Your task to perform on an android device: Check the news Image 0: 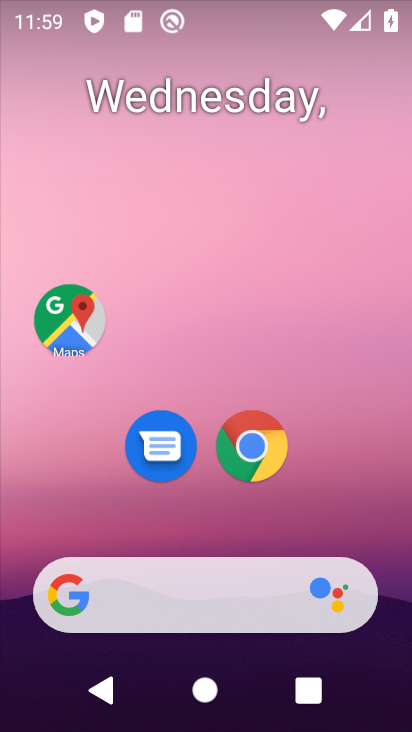
Step 0: click (236, 449)
Your task to perform on an android device: Check the news Image 1: 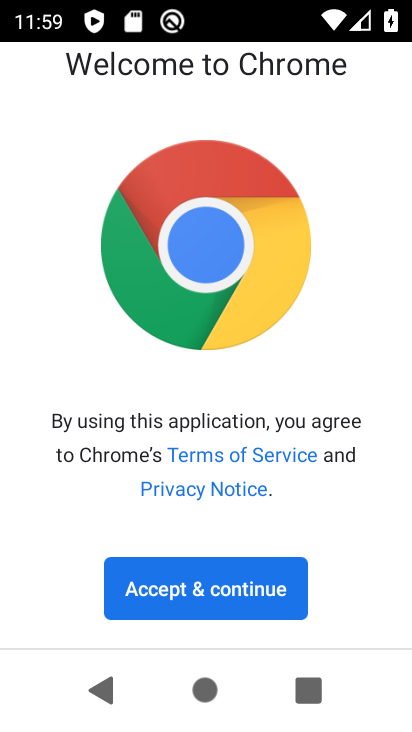
Step 1: click (115, 587)
Your task to perform on an android device: Check the news Image 2: 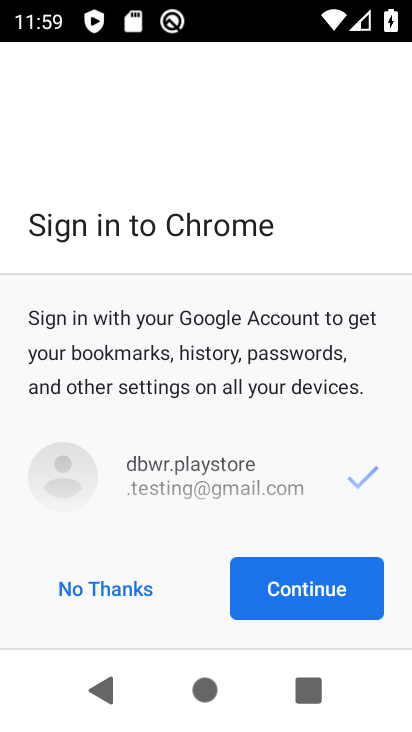
Step 2: click (346, 575)
Your task to perform on an android device: Check the news Image 3: 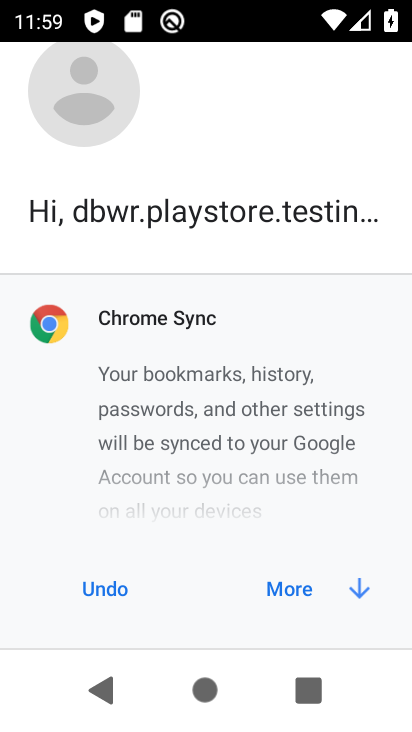
Step 3: click (342, 588)
Your task to perform on an android device: Check the news Image 4: 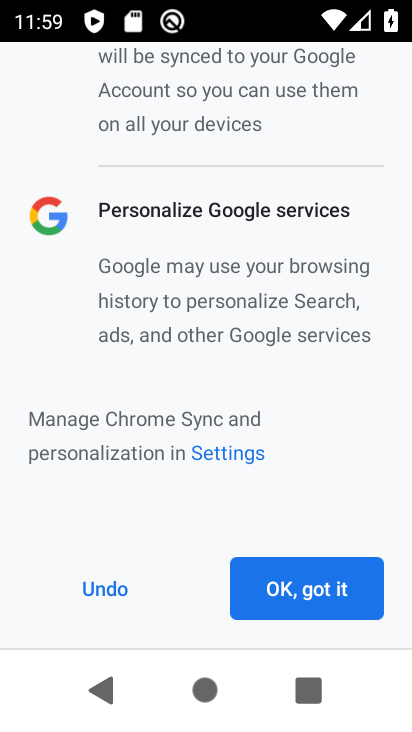
Step 4: click (331, 580)
Your task to perform on an android device: Check the news Image 5: 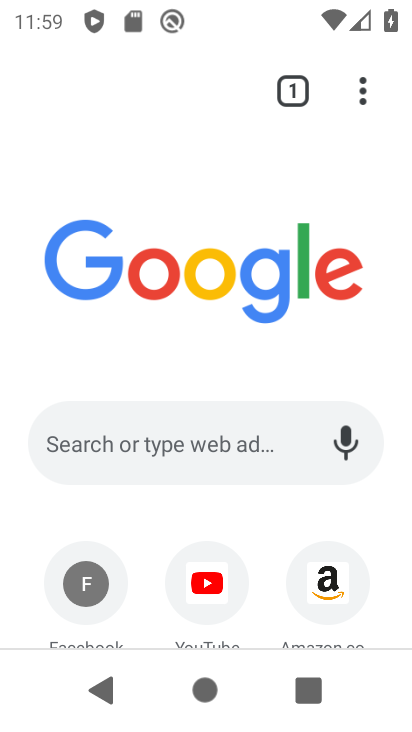
Step 5: click (169, 455)
Your task to perform on an android device: Check the news Image 6: 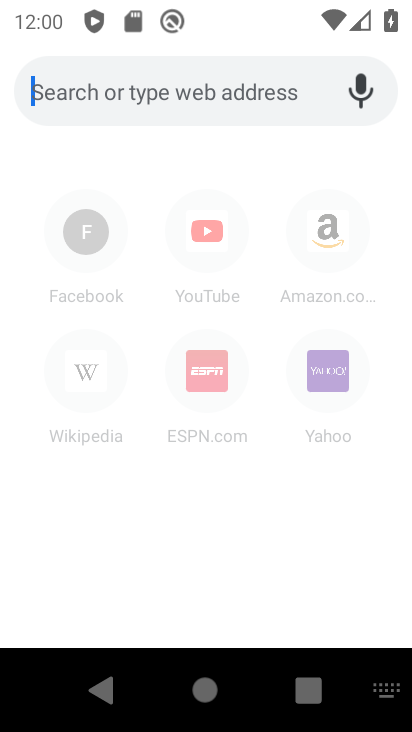
Step 6: type " news"
Your task to perform on an android device: Check the news Image 7: 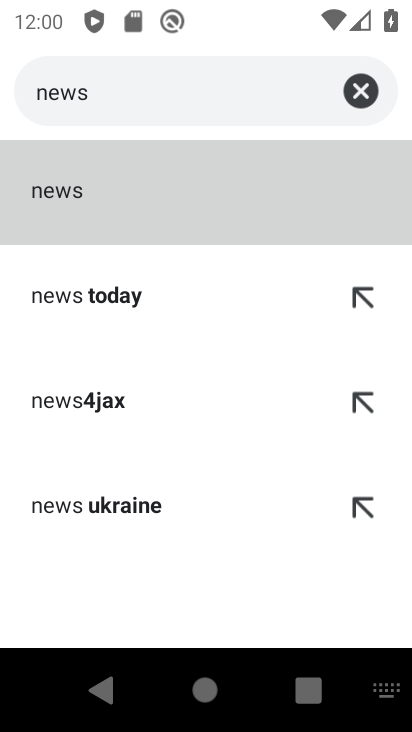
Step 7: click (217, 192)
Your task to perform on an android device: Check the news Image 8: 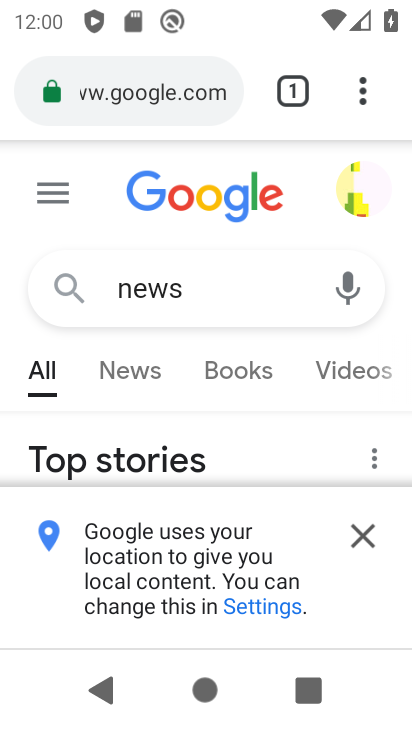
Step 8: task complete